Your task to perform on an android device: Go to notification settings Image 0: 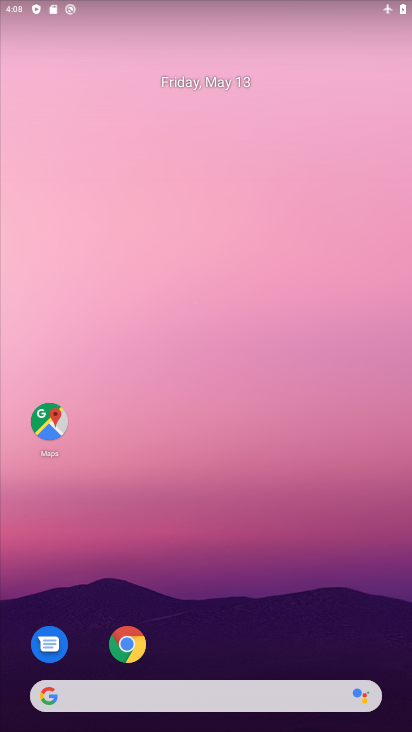
Step 0: drag from (221, 572) to (320, 89)
Your task to perform on an android device: Go to notification settings Image 1: 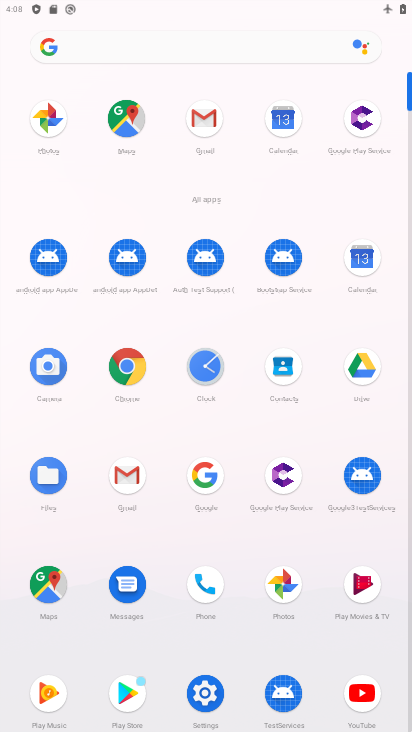
Step 1: click (206, 685)
Your task to perform on an android device: Go to notification settings Image 2: 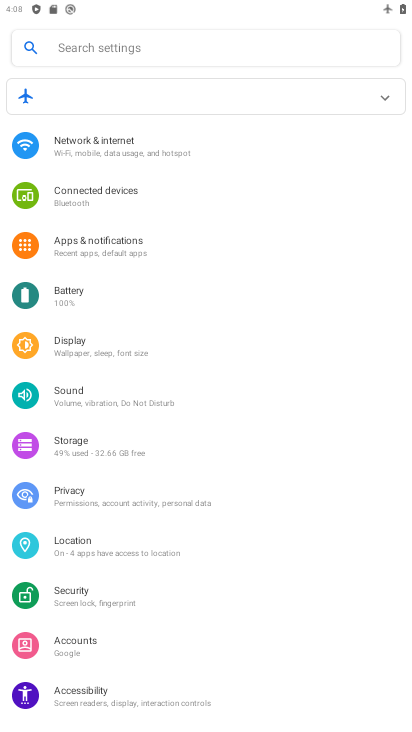
Step 2: click (122, 245)
Your task to perform on an android device: Go to notification settings Image 3: 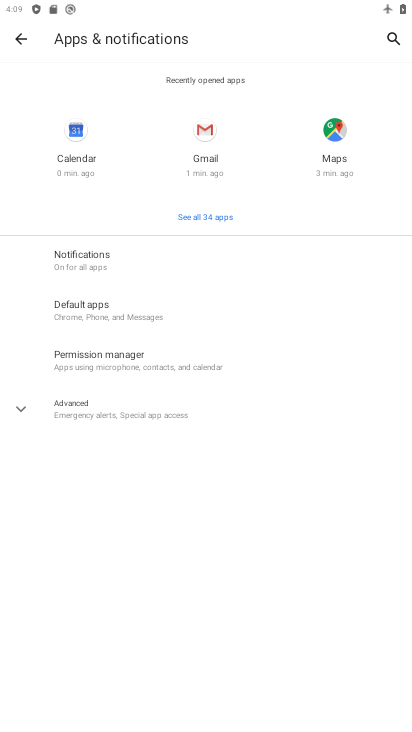
Step 3: task complete